Your task to perform on an android device: turn pop-ups on in chrome Image 0: 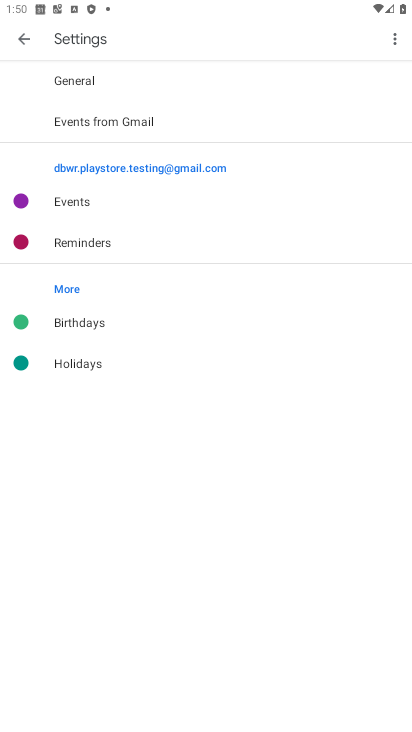
Step 0: press home button
Your task to perform on an android device: turn pop-ups on in chrome Image 1: 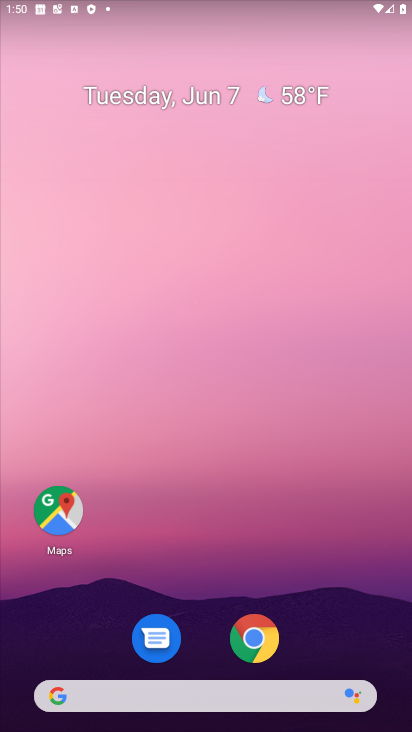
Step 1: drag from (232, 663) to (274, 335)
Your task to perform on an android device: turn pop-ups on in chrome Image 2: 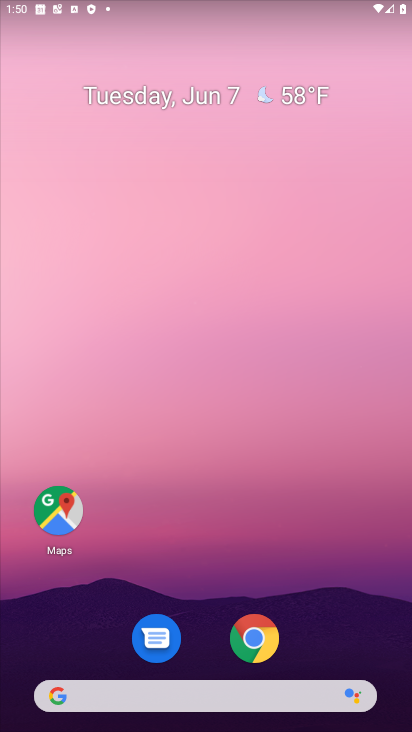
Step 2: drag from (200, 533) to (252, 267)
Your task to perform on an android device: turn pop-ups on in chrome Image 3: 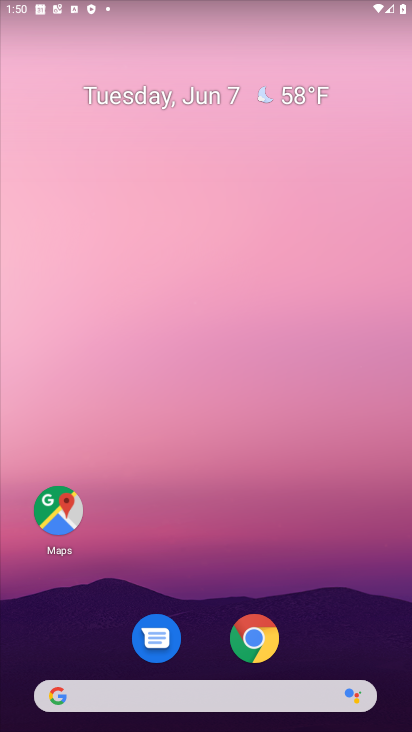
Step 3: drag from (203, 634) to (183, 149)
Your task to perform on an android device: turn pop-ups on in chrome Image 4: 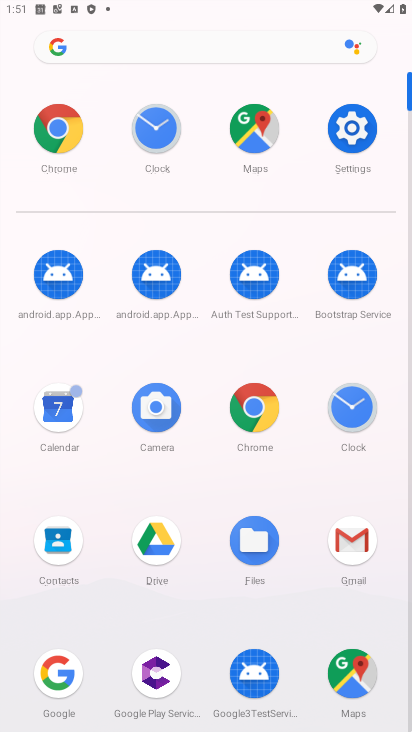
Step 4: click (54, 128)
Your task to perform on an android device: turn pop-ups on in chrome Image 5: 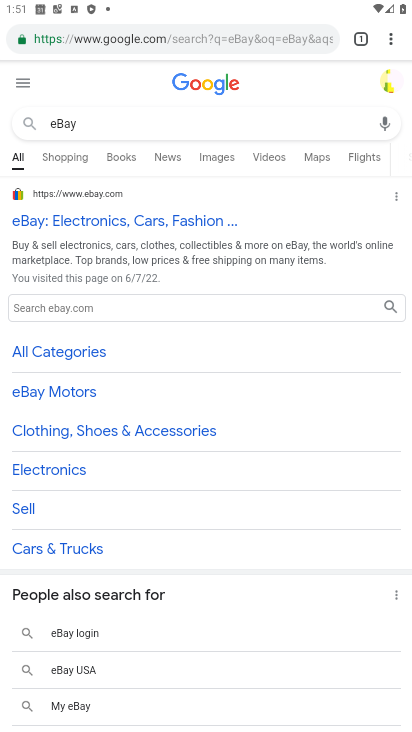
Step 5: click (394, 36)
Your task to perform on an android device: turn pop-ups on in chrome Image 6: 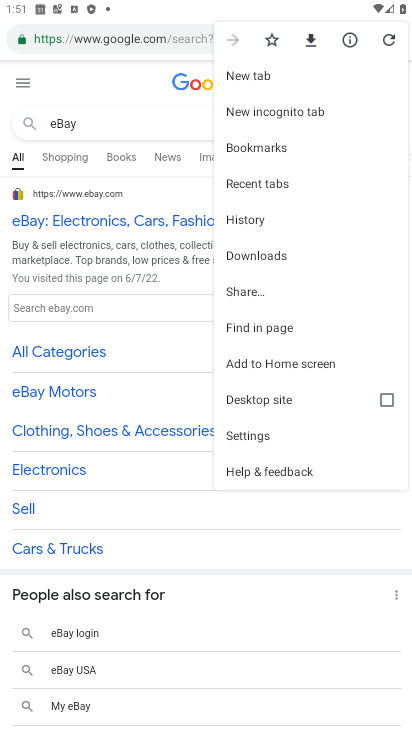
Step 6: click (274, 443)
Your task to perform on an android device: turn pop-ups on in chrome Image 7: 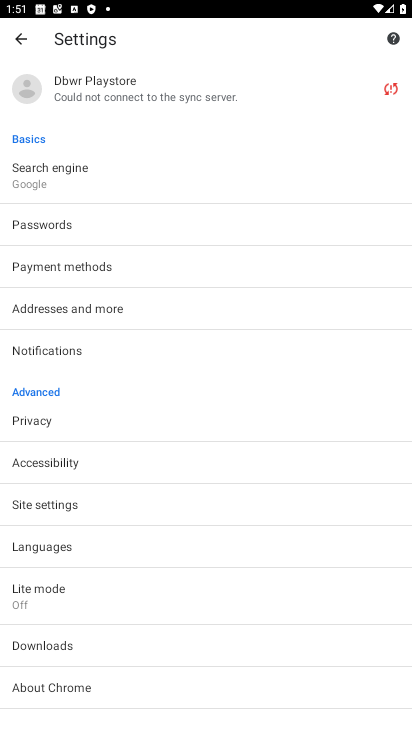
Step 7: click (63, 509)
Your task to perform on an android device: turn pop-ups on in chrome Image 8: 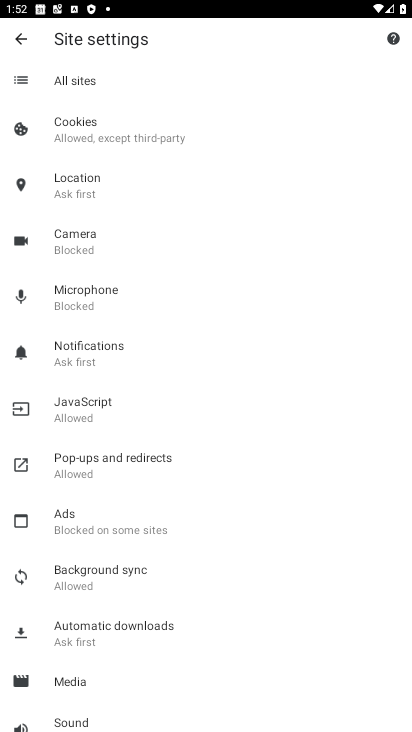
Step 8: click (148, 471)
Your task to perform on an android device: turn pop-ups on in chrome Image 9: 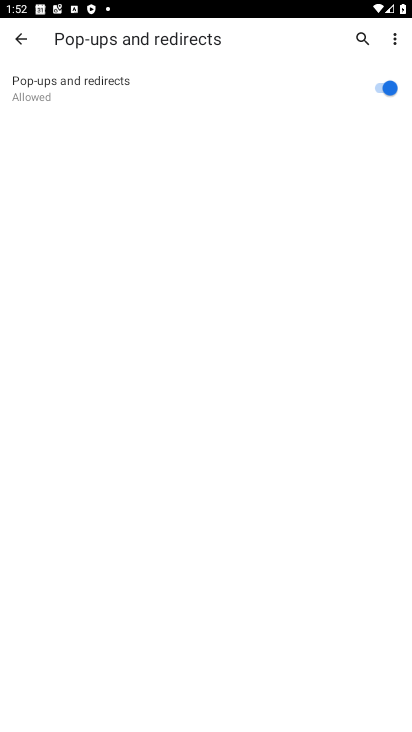
Step 9: task complete